Your task to perform on an android device: Open the calendar app, open the side menu, and click the "Day" option Image 0: 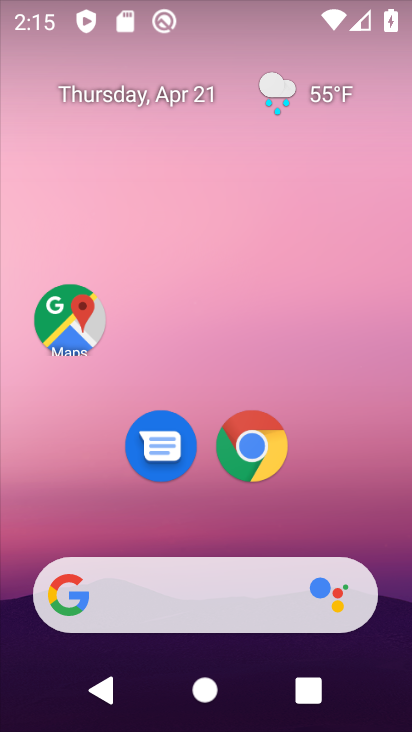
Step 0: drag from (204, 677) to (204, 37)
Your task to perform on an android device: Open the calendar app, open the side menu, and click the "Day" option Image 1: 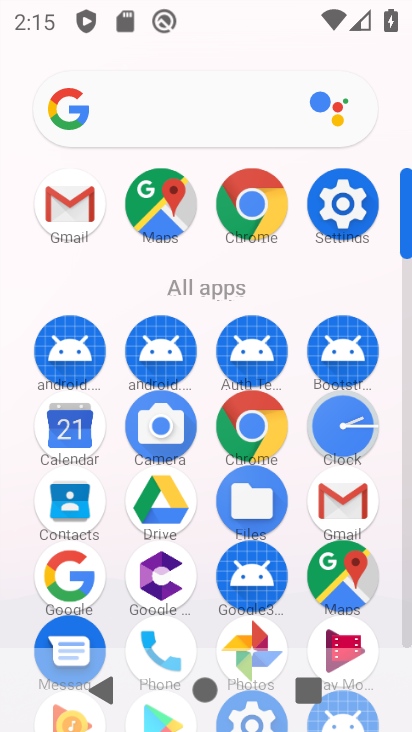
Step 1: click (72, 438)
Your task to perform on an android device: Open the calendar app, open the side menu, and click the "Day" option Image 2: 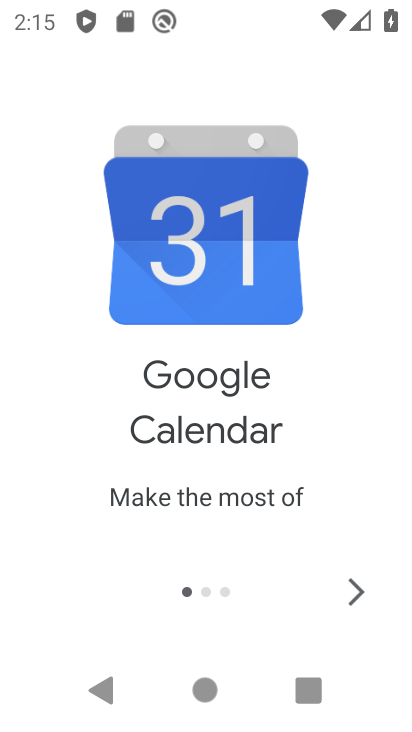
Step 2: click (356, 590)
Your task to perform on an android device: Open the calendar app, open the side menu, and click the "Day" option Image 3: 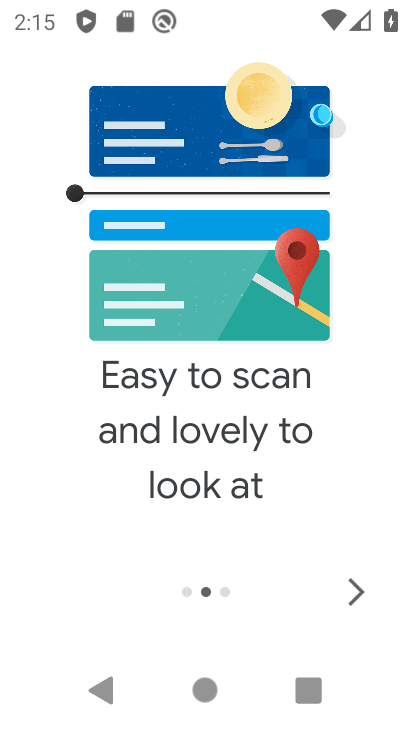
Step 3: click (356, 590)
Your task to perform on an android device: Open the calendar app, open the side menu, and click the "Day" option Image 4: 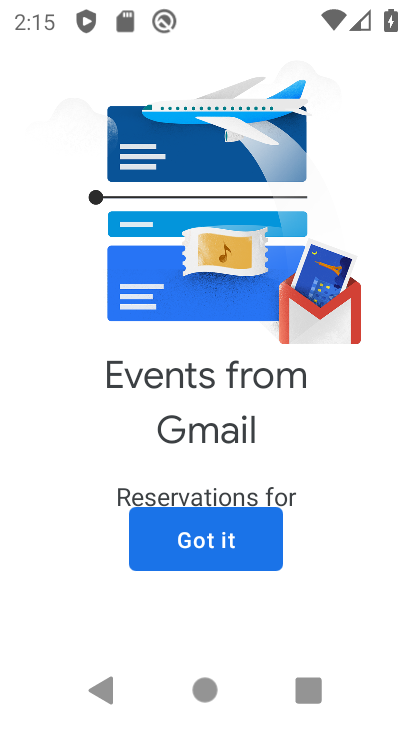
Step 4: click (224, 543)
Your task to perform on an android device: Open the calendar app, open the side menu, and click the "Day" option Image 5: 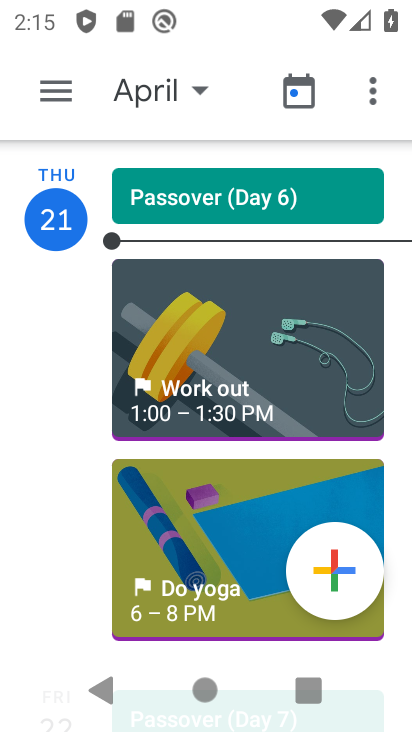
Step 5: click (56, 93)
Your task to perform on an android device: Open the calendar app, open the side menu, and click the "Day" option Image 6: 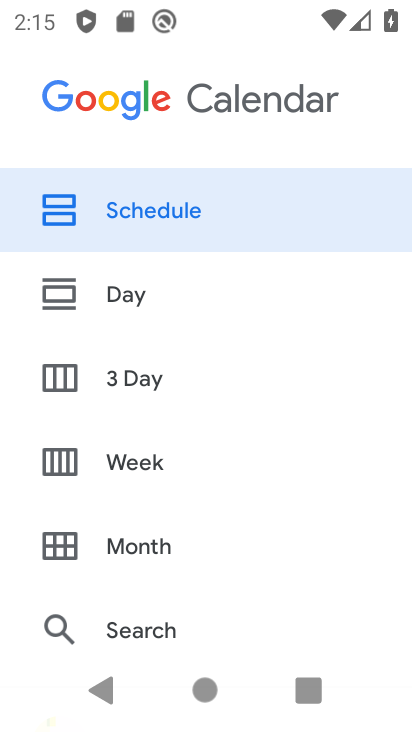
Step 6: click (120, 294)
Your task to perform on an android device: Open the calendar app, open the side menu, and click the "Day" option Image 7: 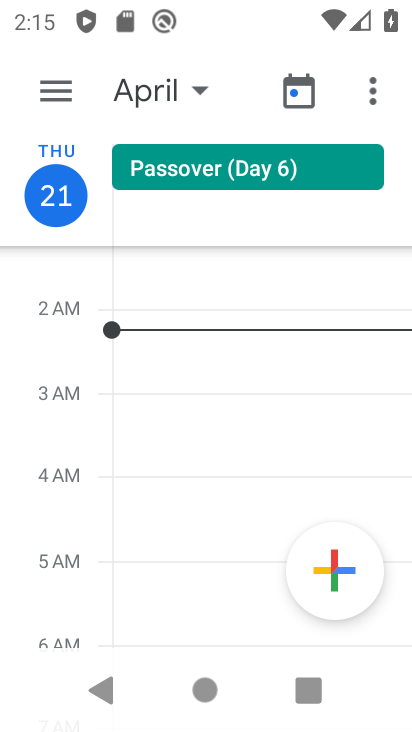
Step 7: task complete